Your task to perform on an android device: Open the calendar app, open the side menu, and click the "Day" option Image 0: 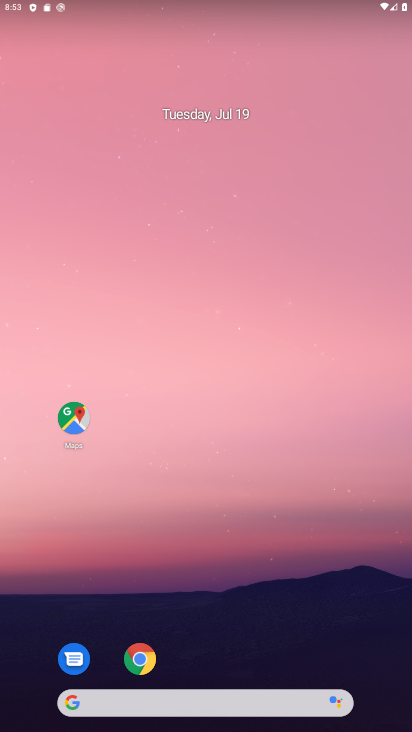
Step 0: drag from (186, 441) to (202, 94)
Your task to perform on an android device: Open the calendar app, open the side menu, and click the "Day" option Image 1: 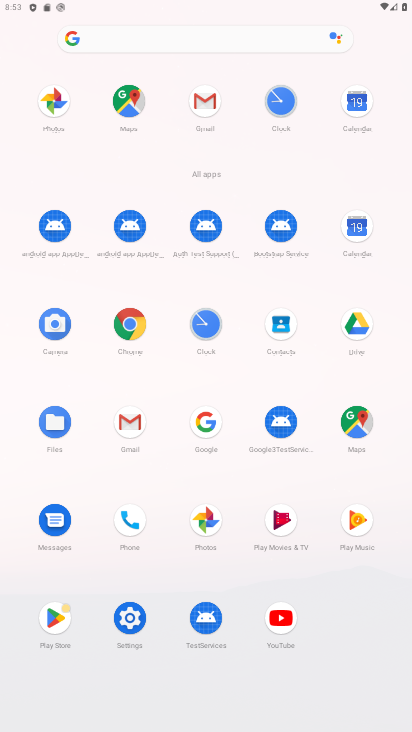
Step 1: click (354, 99)
Your task to perform on an android device: Open the calendar app, open the side menu, and click the "Day" option Image 2: 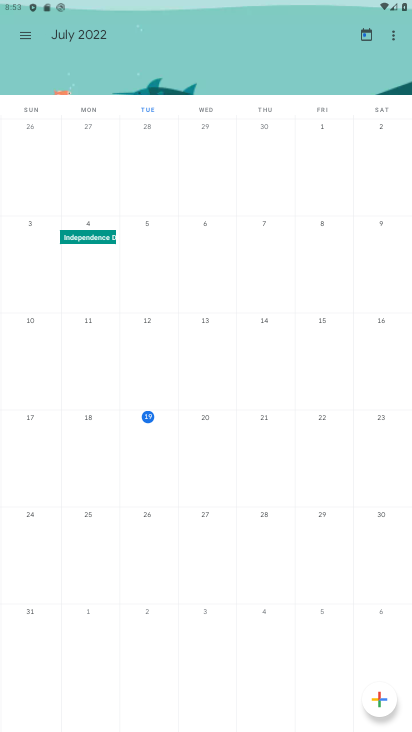
Step 2: click (24, 31)
Your task to perform on an android device: Open the calendar app, open the side menu, and click the "Day" option Image 3: 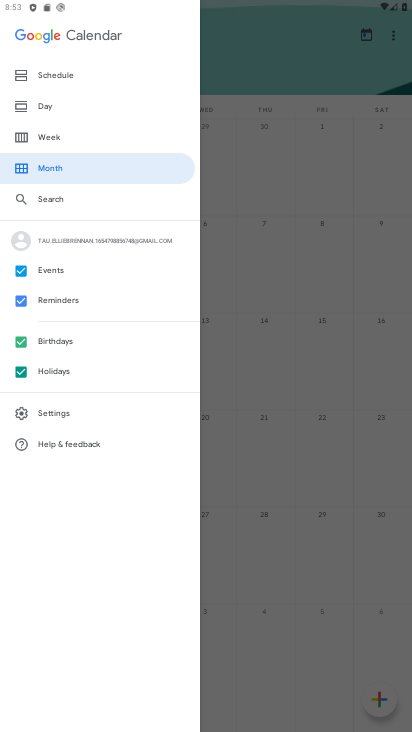
Step 3: click (46, 98)
Your task to perform on an android device: Open the calendar app, open the side menu, and click the "Day" option Image 4: 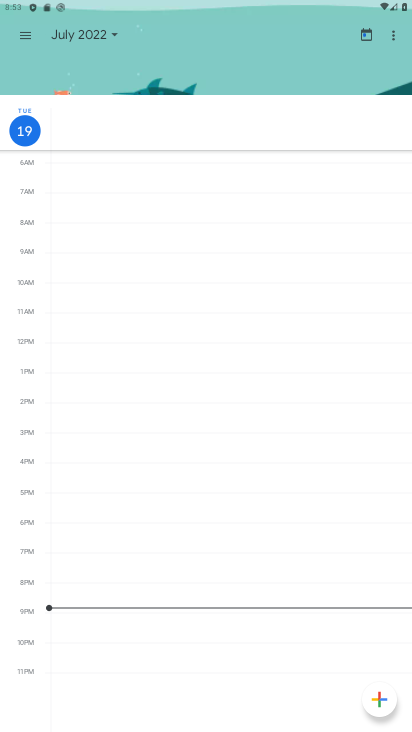
Step 4: task complete